Your task to perform on an android device: set the timer Image 0: 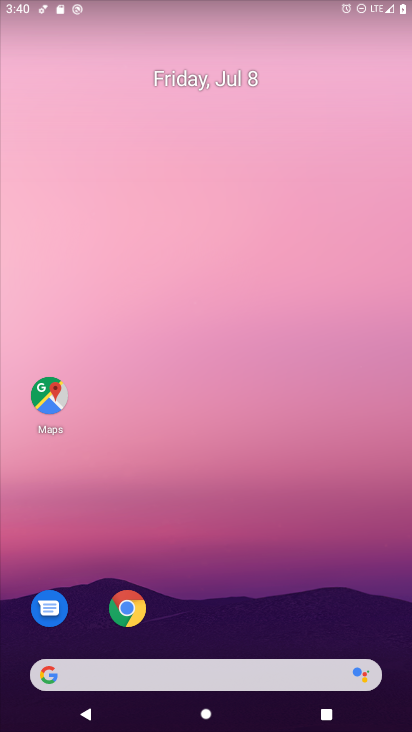
Step 0: drag from (238, 601) to (232, 3)
Your task to perform on an android device: set the timer Image 1: 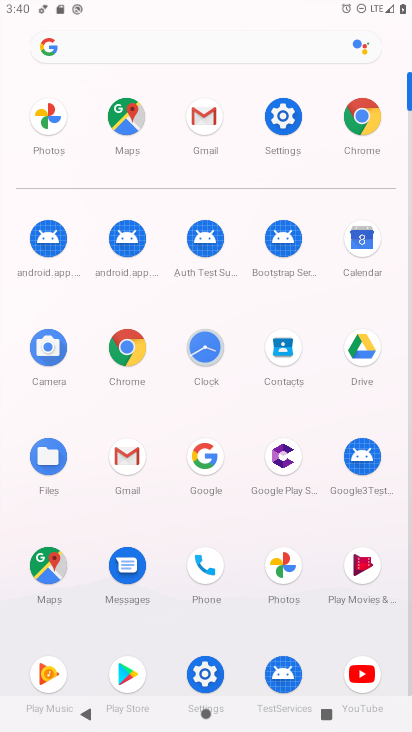
Step 1: click (213, 344)
Your task to perform on an android device: set the timer Image 2: 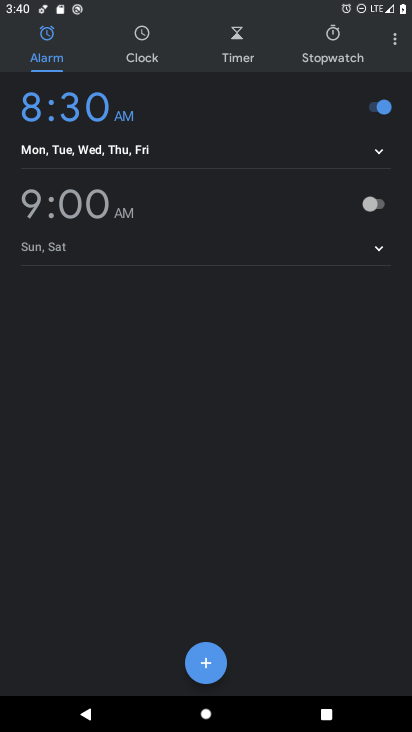
Step 2: click (394, 26)
Your task to perform on an android device: set the timer Image 3: 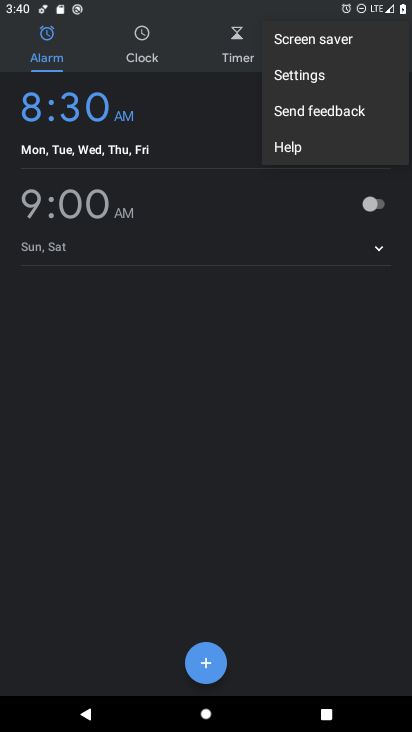
Step 3: click (334, 78)
Your task to perform on an android device: set the timer Image 4: 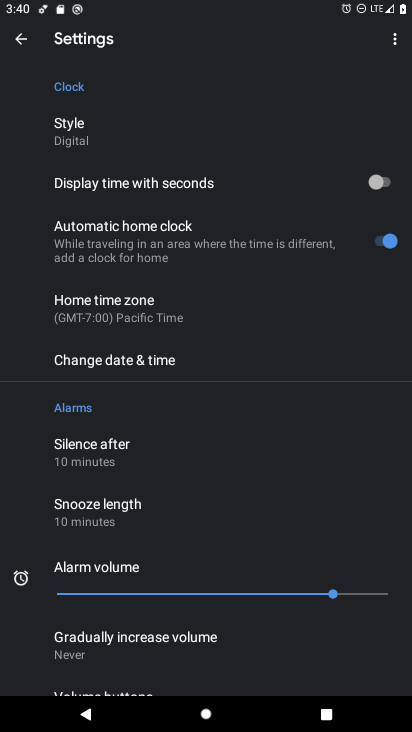
Step 4: drag from (230, 566) to (292, 162)
Your task to perform on an android device: set the timer Image 5: 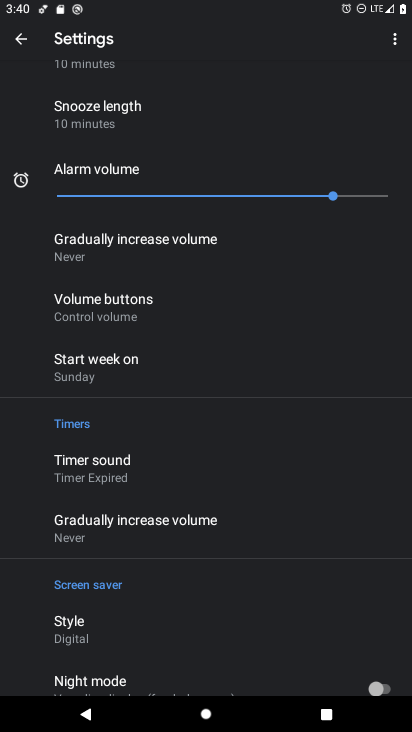
Step 5: click (170, 461)
Your task to perform on an android device: set the timer Image 6: 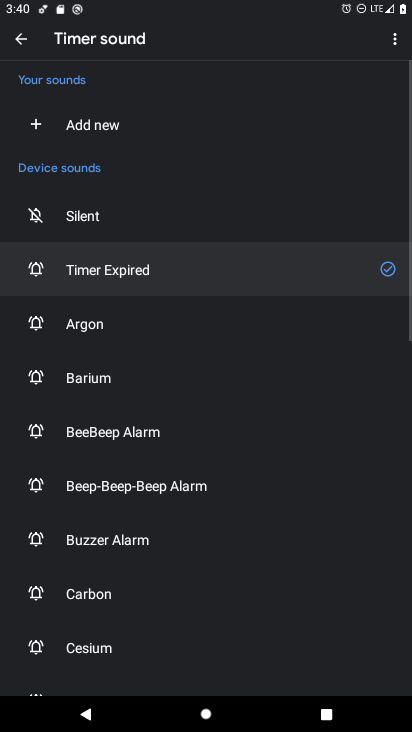
Step 6: click (132, 320)
Your task to perform on an android device: set the timer Image 7: 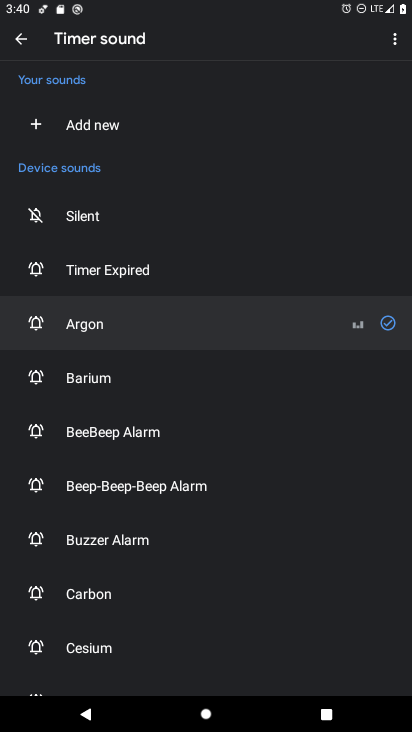
Step 7: task complete